Your task to perform on an android device: stop showing notifications on the lock screen Image 0: 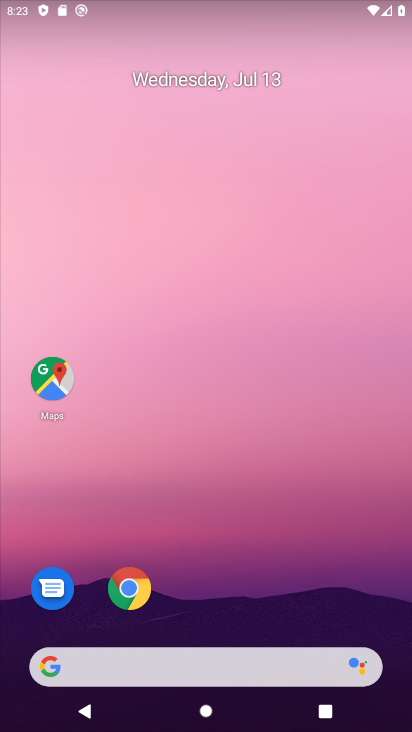
Step 0: drag from (388, 686) to (289, 40)
Your task to perform on an android device: stop showing notifications on the lock screen Image 1: 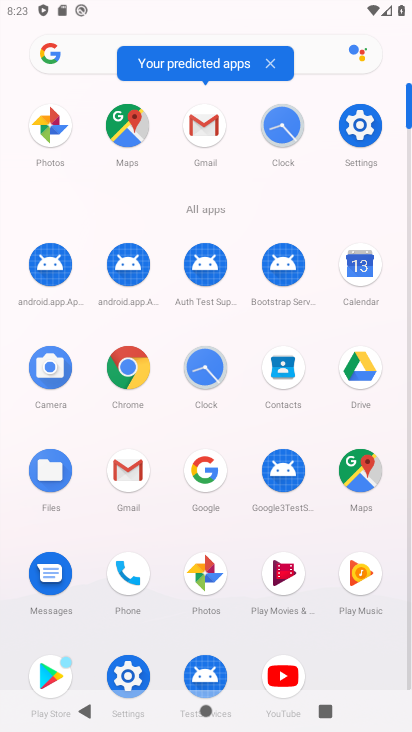
Step 1: click (121, 657)
Your task to perform on an android device: stop showing notifications on the lock screen Image 2: 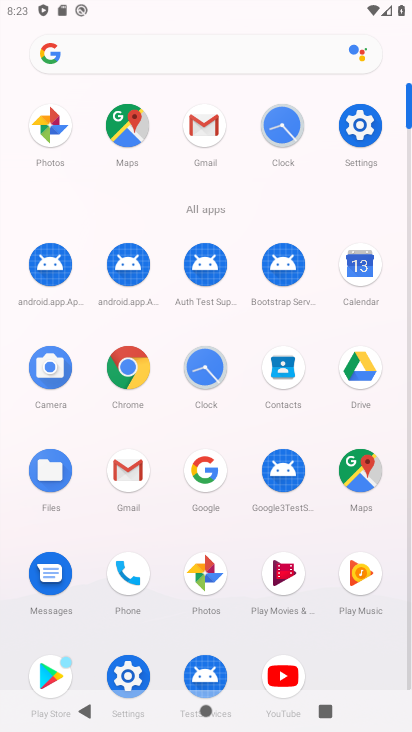
Step 2: click (363, 120)
Your task to perform on an android device: stop showing notifications on the lock screen Image 3: 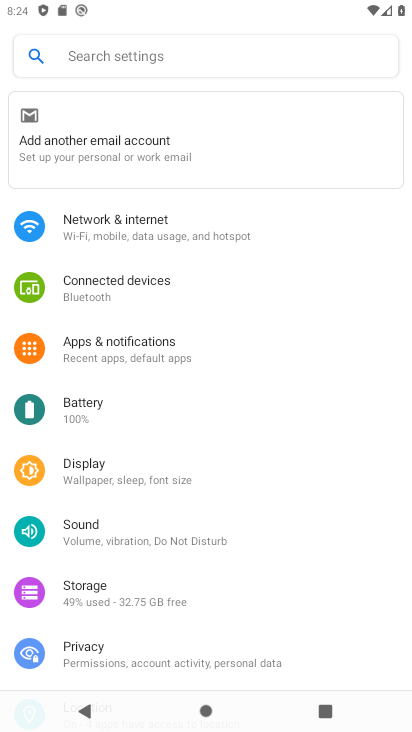
Step 3: click (117, 222)
Your task to perform on an android device: stop showing notifications on the lock screen Image 4: 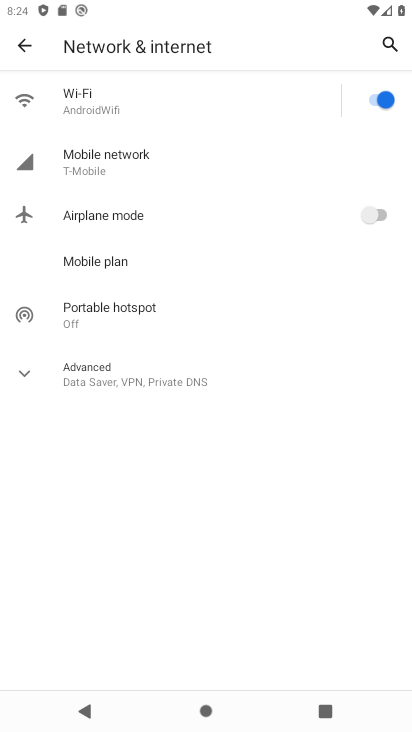
Step 4: click (25, 38)
Your task to perform on an android device: stop showing notifications on the lock screen Image 5: 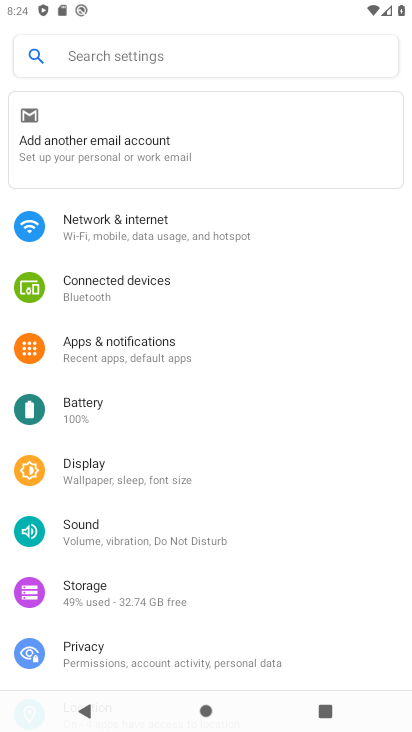
Step 5: click (93, 344)
Your task to perform on an android device: stop showing notifications on the lock screen Image 6: 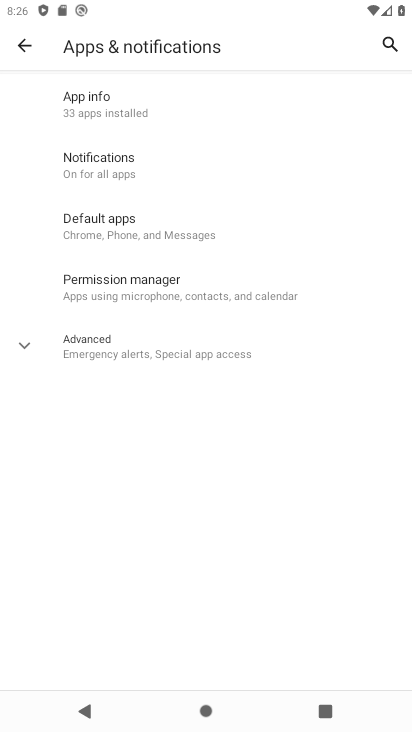
Step 6: task complete